Your task to perform on an android device: turn on the 24-hour format for clock Image 0: 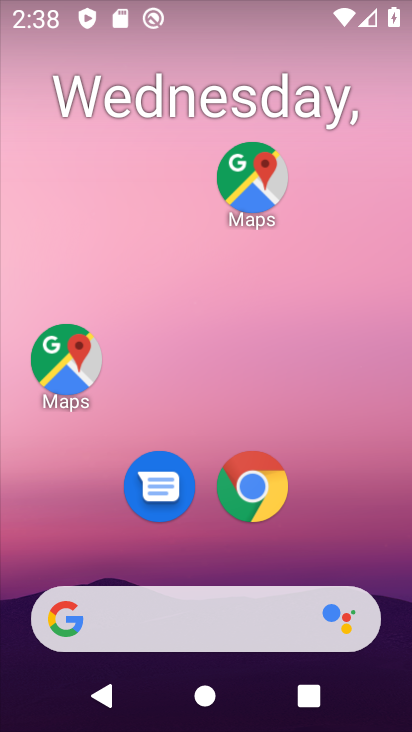
Step 0: drag from (214, 574) to (140, 14)
Your task to perform on an android device: turn on the 24-hour format for clock Image 1: 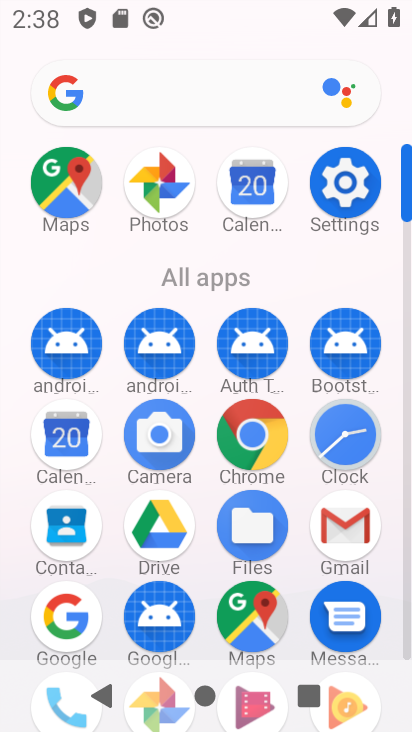
Step 1: click (329, 446)
Your task to perform on an android device: turn on the 24-hour format for clock Image 2: 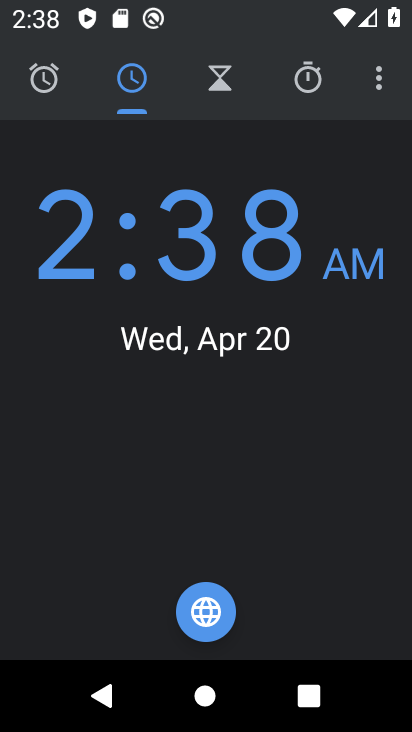
Step 2: click (378, 73)
Your task to perform on an android device: turn on the 24-hour format for clock Image 3: 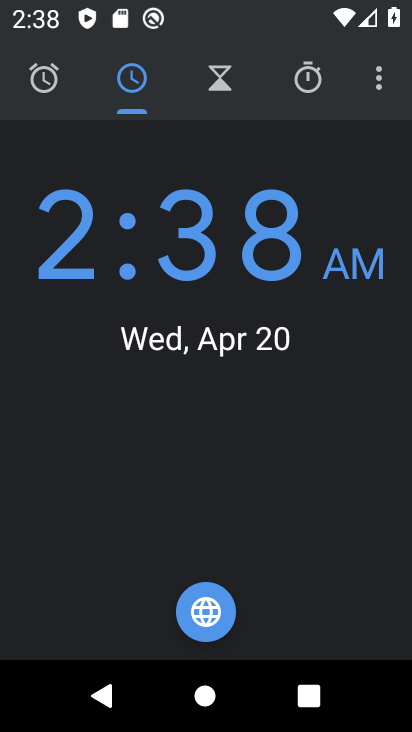
Step 3: click (336, 156)
Your task to perform on an android device: turn on the 24-hour format for clock Image 4: 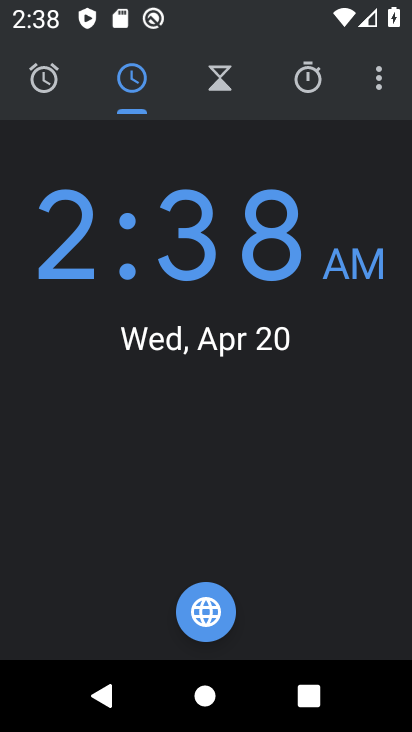
Step 4: click (371, 90)
Your task to perform on an android device: turn on the 24-hour format for clock Image 5: 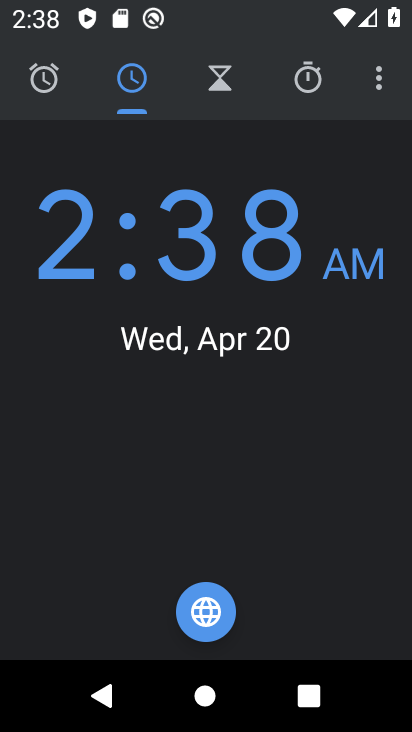
Step 5: click (365, 165)
Your task to perform on an android device: turn on the 24-hour format for clock Image 6: 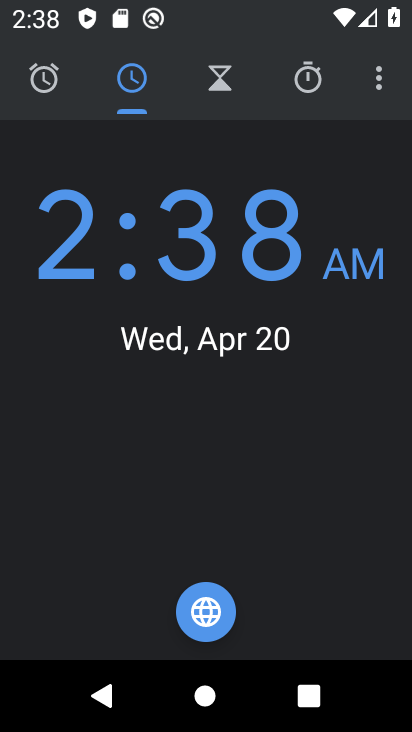
Step 6: click (376, 90)
Your task to perform on an android device: turn on the 24-hour format for clock Image 7: 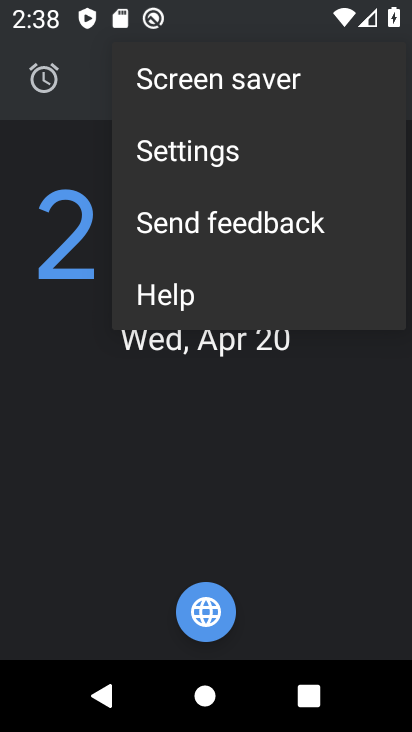
Step 7: click (206, 140)
Your task to perform on an android device: turn on the 24-hour format for clock Image 8: 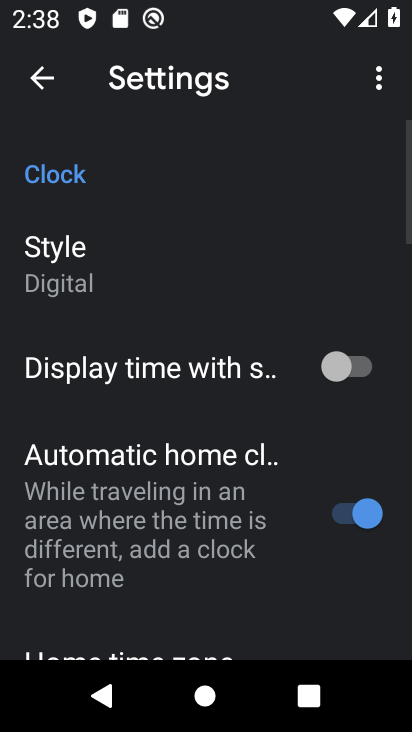
Step 8: drag from (162, 592) to (109, 118)
Your task to perform on an android device: turn on the 24-hour format for clock Image 9: 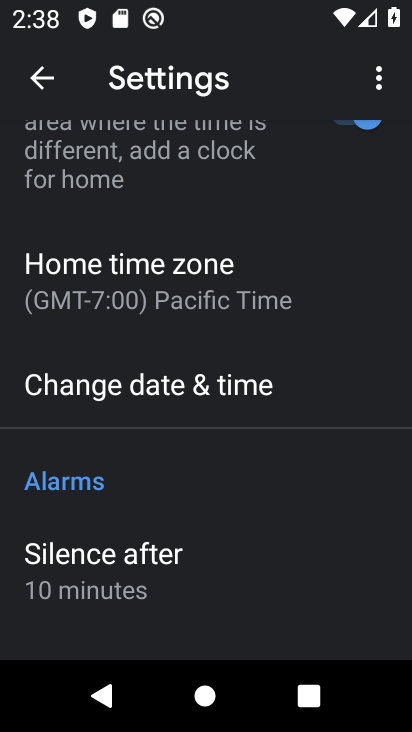
Step 9: click (140, 398)
Your task to perform on an android device: turn on the 24-hour format for clock Image 10: 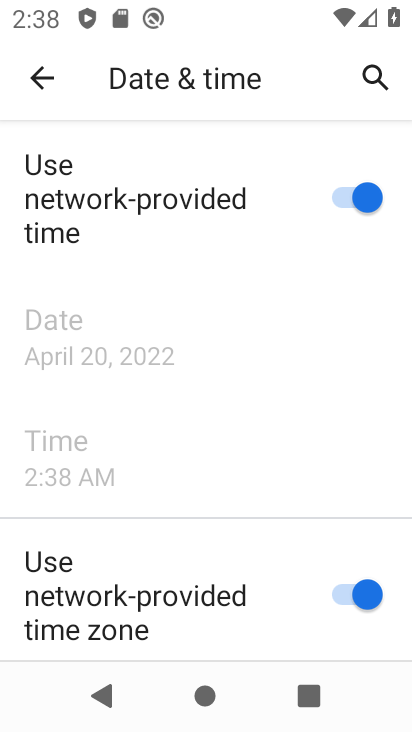
Step 10: drag from (179, 570) to (168, 84)
Your task to perform on an android device: turn on the 24-hour format for clock Image 11: 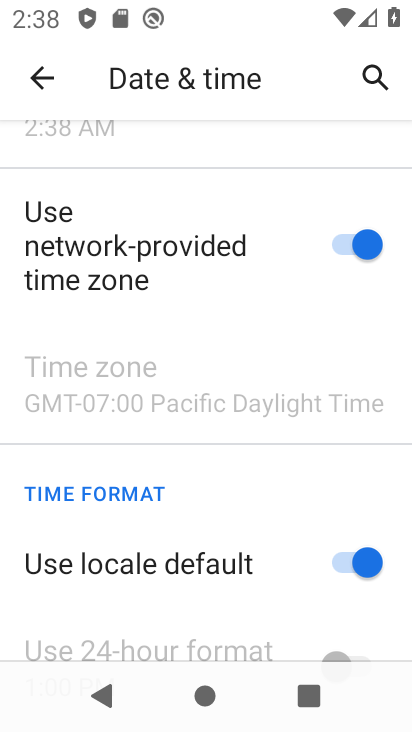
Step 11: click (352, 553)
Your task to perform on an android device: turn on the 24-hour format for clock Image 12: 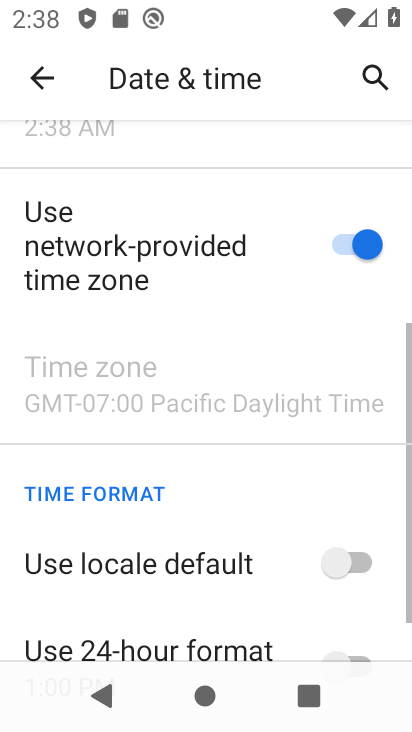
Step 12: click (344, 653)
Your task to perform on an android device: turn on the 24-hour format for clock Image 13: 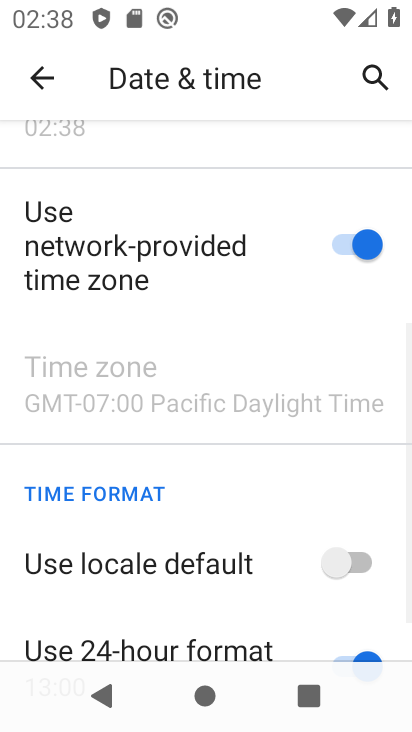
Step 13: task complete